Your task to perform on an android device: Search for good Chinese restaurants Image 0: 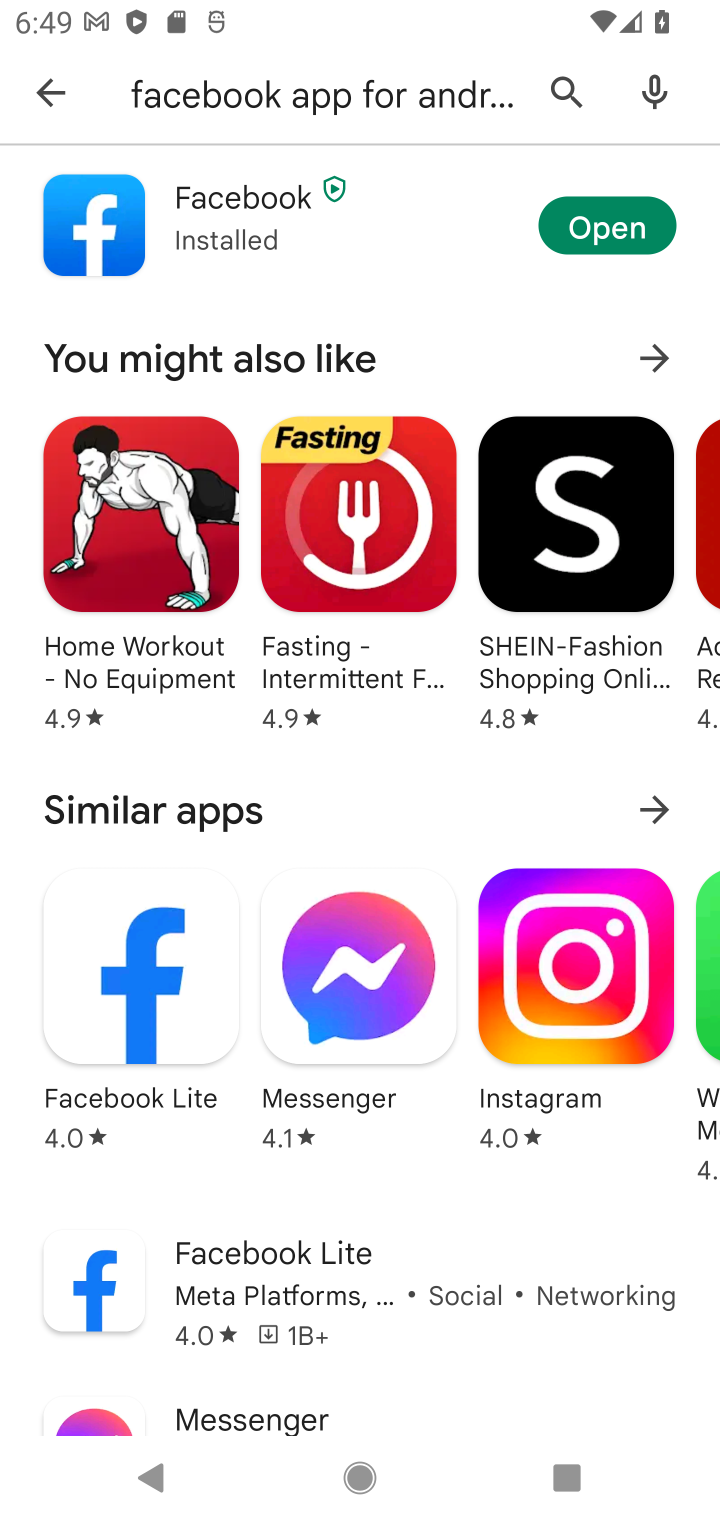
Step 0: press home button
Your task to perform on an android device: Search for good Chinese restaurants Image 1: 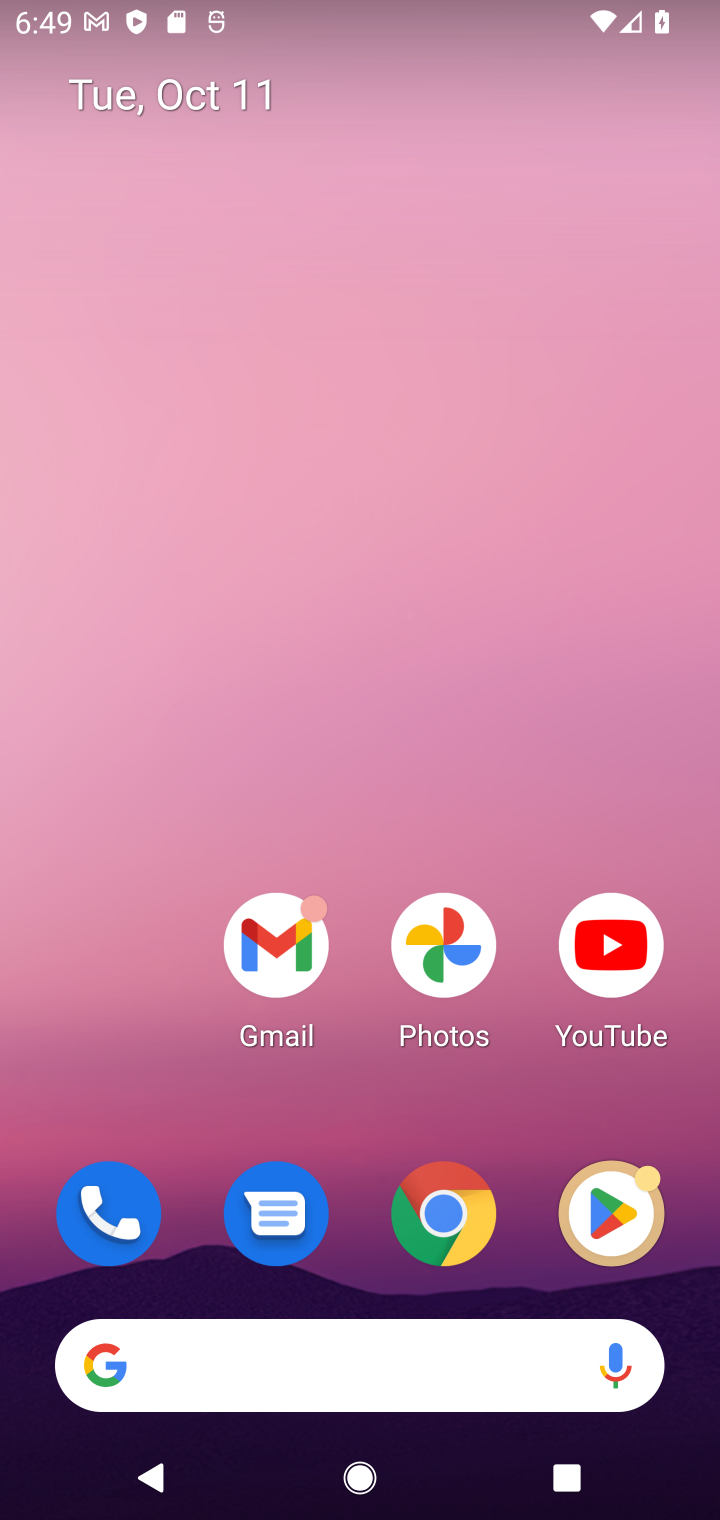
Step 1: drag from (263, 1129) to (242, 388)
Your task to perform on an android device: Search for good Chinese restaurants Image 2: 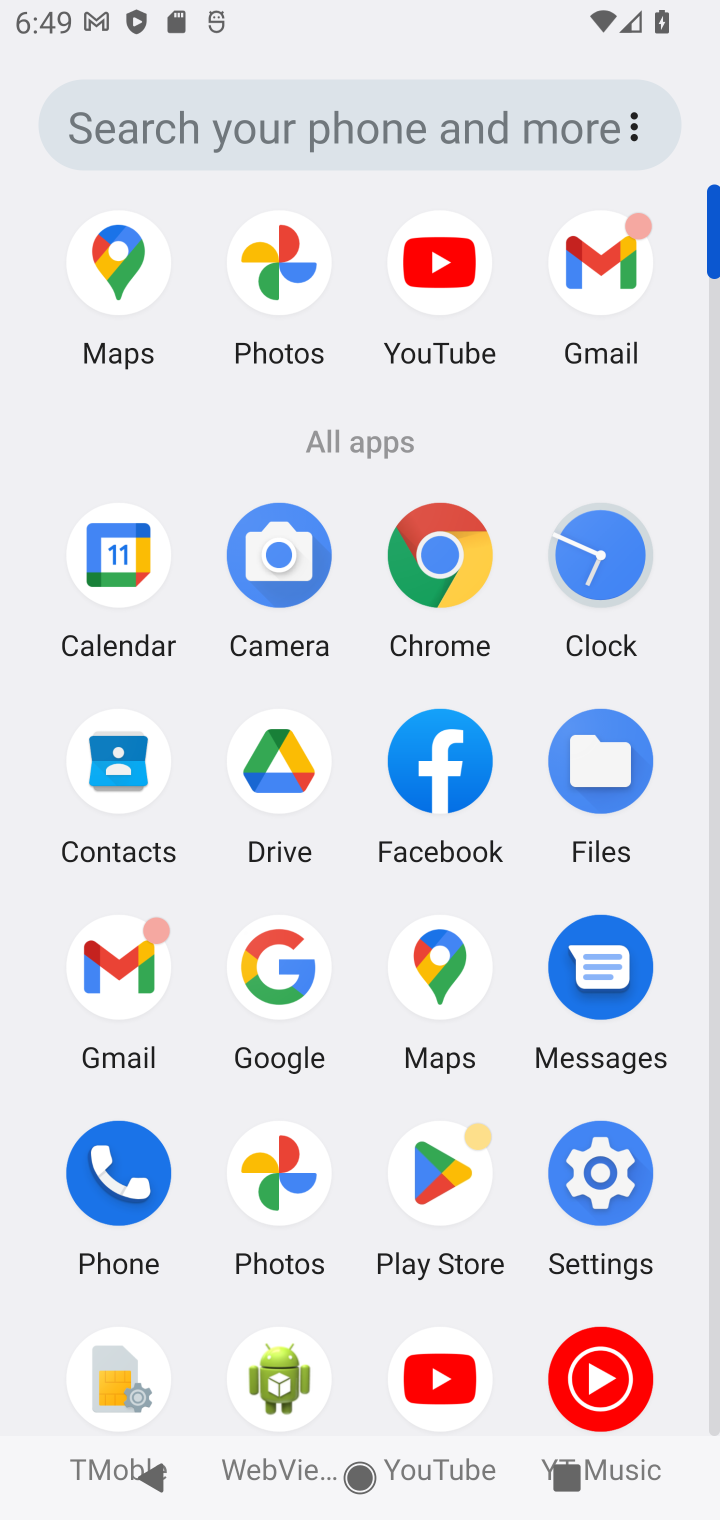
Step 2: click (255, 948)
Your task to perform on an android device: Search for good Chinese restaurants Image 3: 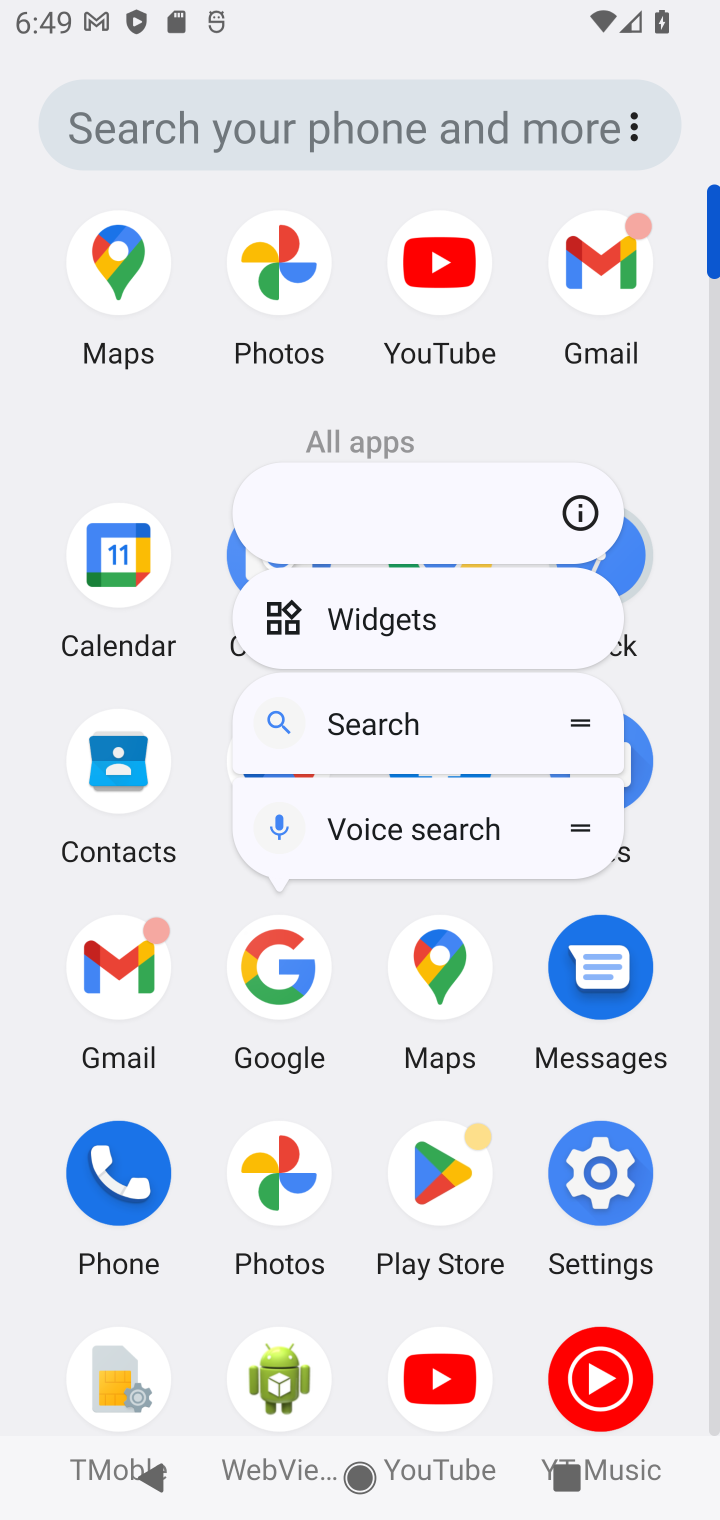
Step 3: click (261, 952)
Your task to perform on an android device: Search for good Chinese restaurants Image 4: 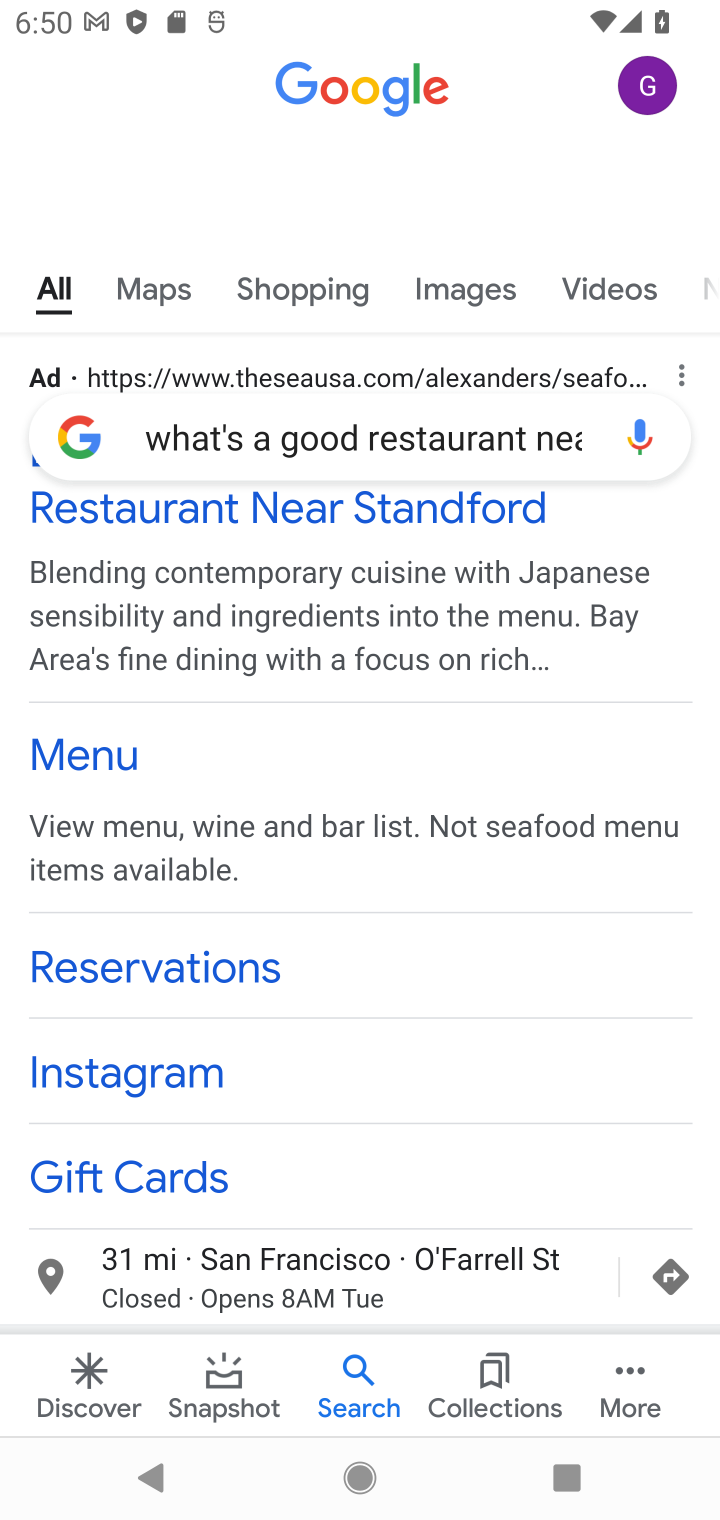
Step 4: click (270, 518)
Your task to perform on an android device: Search for good Chinese restaurants Image 5: 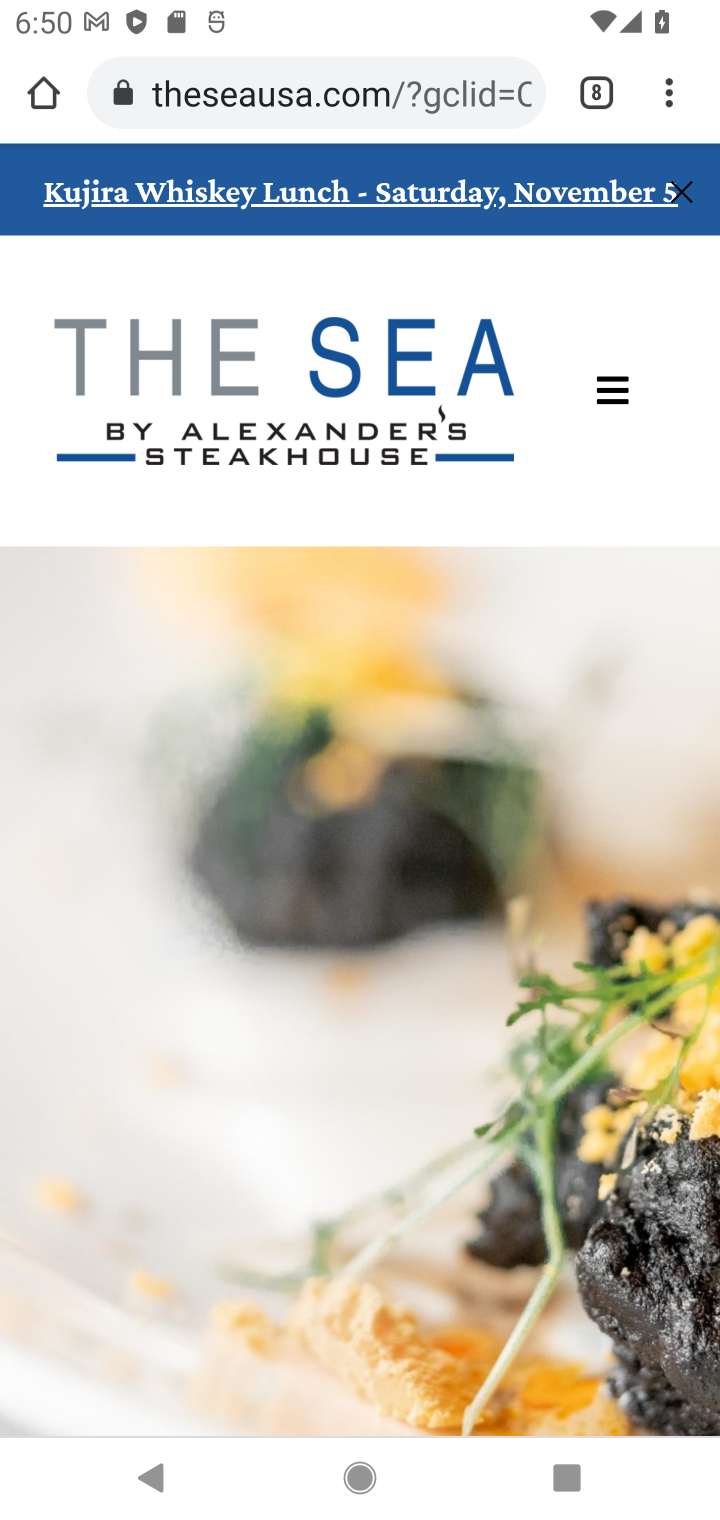
Step 5: task complete